Your task to perform on an android device: Open my contact list Image 0: 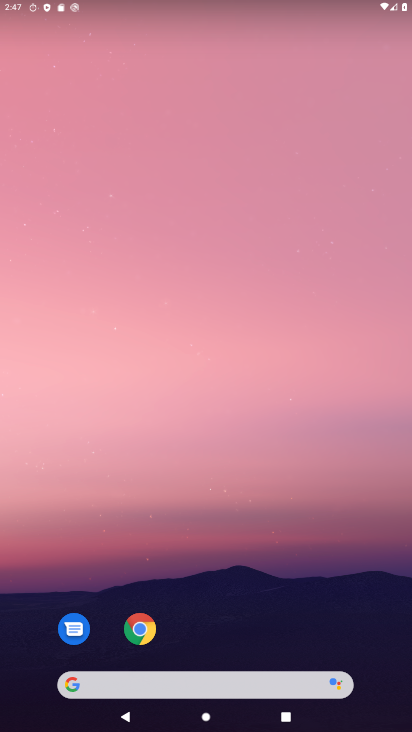
Step 0: drag from (266, 627) to (310, 41)
Your task to perform on an android device: Open my contact list Image 1: 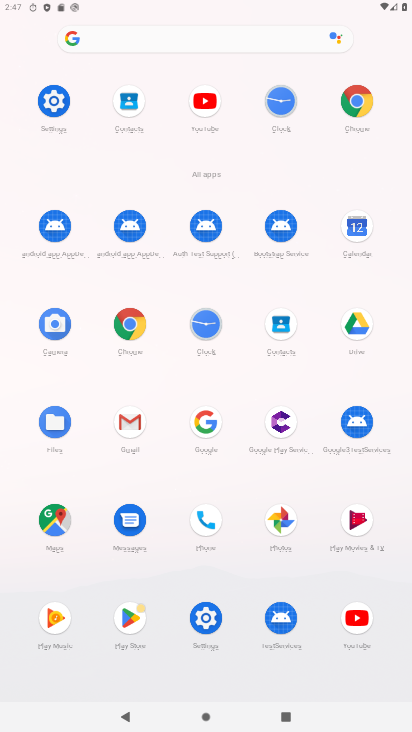
Step 1: click (273, 327)
Your task to perform on an android device: Open my contact list Image 2: 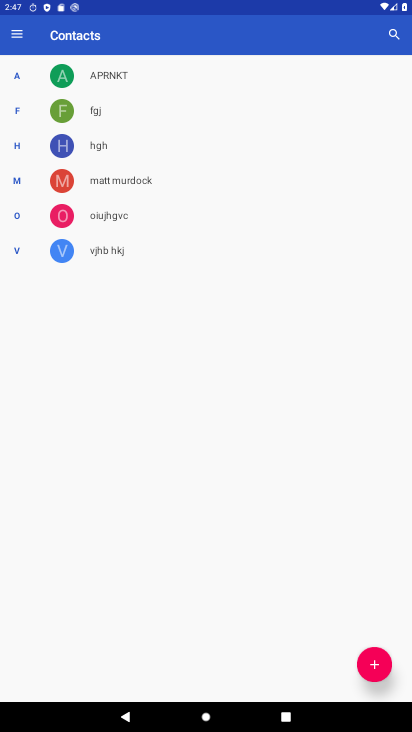
Step 2: task complete